Your task to perform on an android device: turn pop-ups off in chrome Image 0: 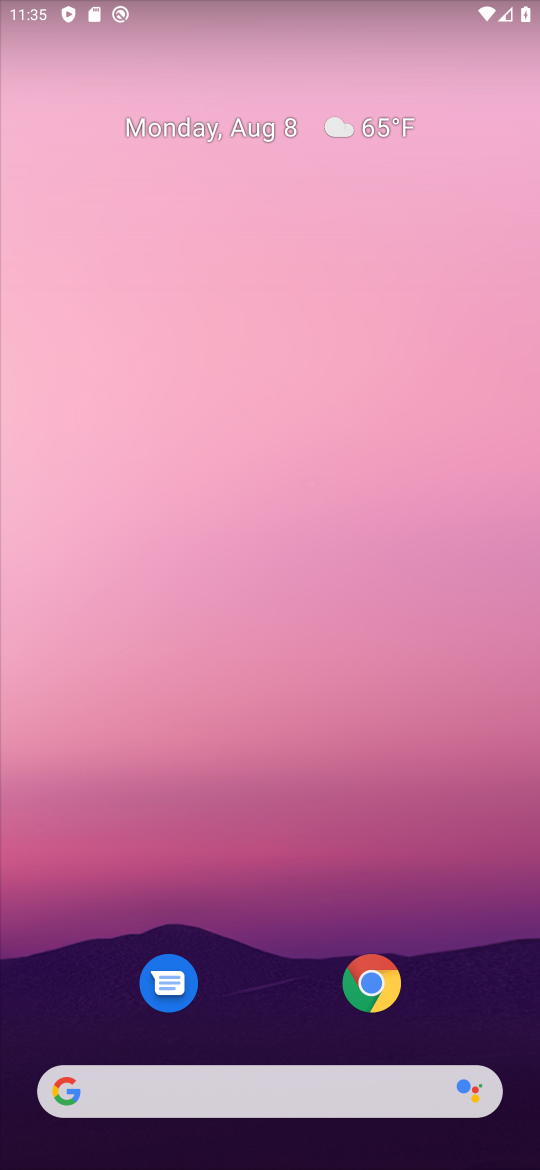
Step 0: click (393, 976)
Your task to perform on an android device: turn pop-ups off in chrome Image 1: 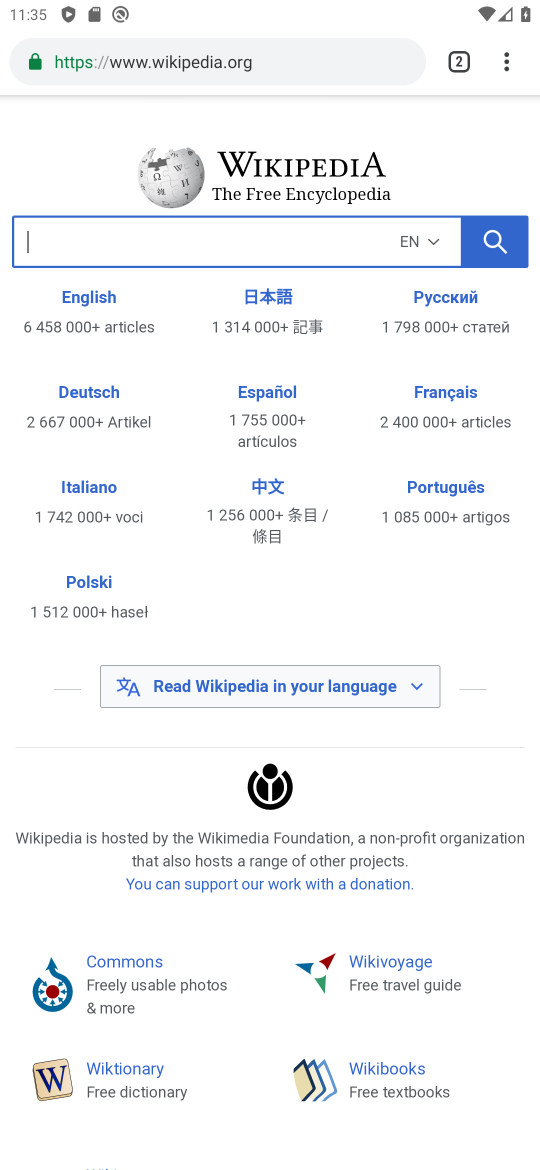
Step 1: click (302, 63)
Your task to perform on an android device: turn pop-ups off in chrome Image 2: 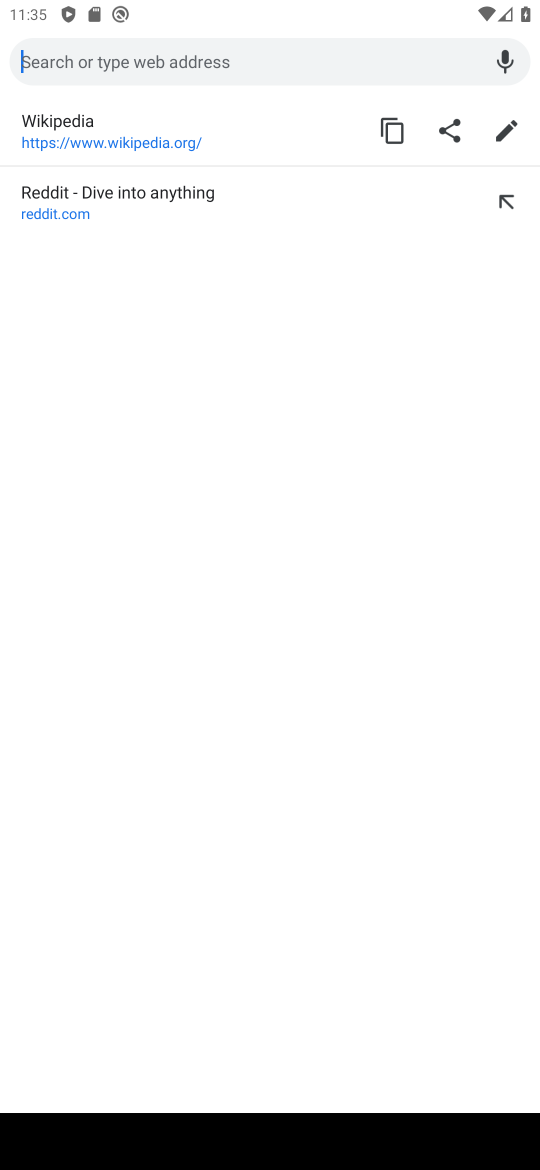
Step 2: task complete